Your task to perform on an android device: turn notification dots off Image 0: 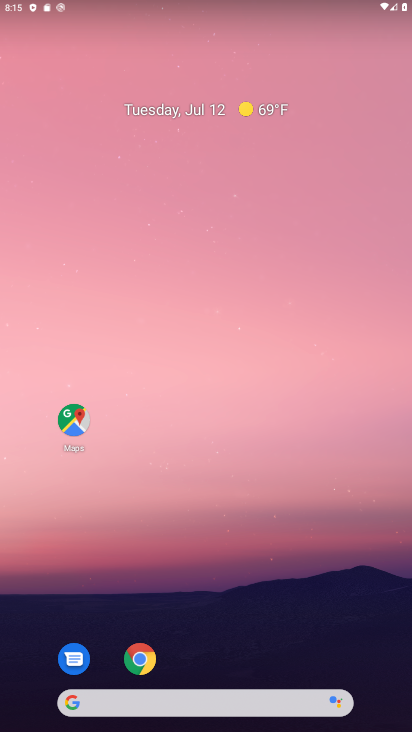
Step 0: drag from (378, 637) to (238, 88)
Your task to perform on an android device: turn notification dots off Image 1: 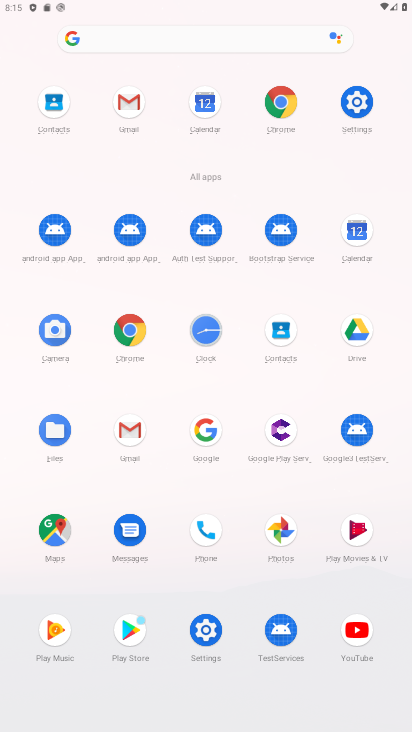
Step 1: click (347, 113)
Your task to perform on an android device: turn notification dots off Image 2: 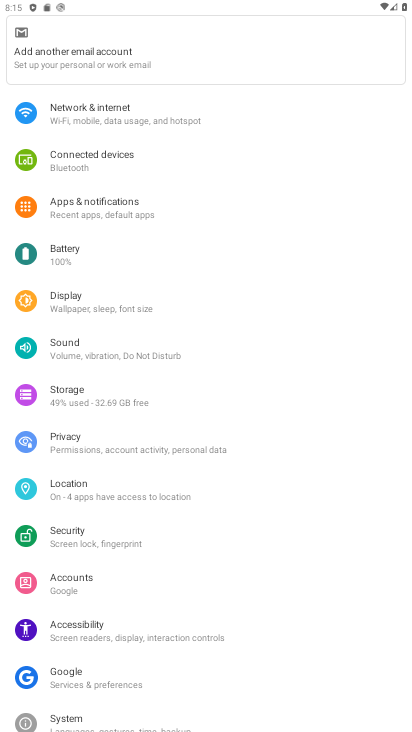
Step 2: click (256, 200)
Your task to perform on an android device: turn notification dots off Image 3: 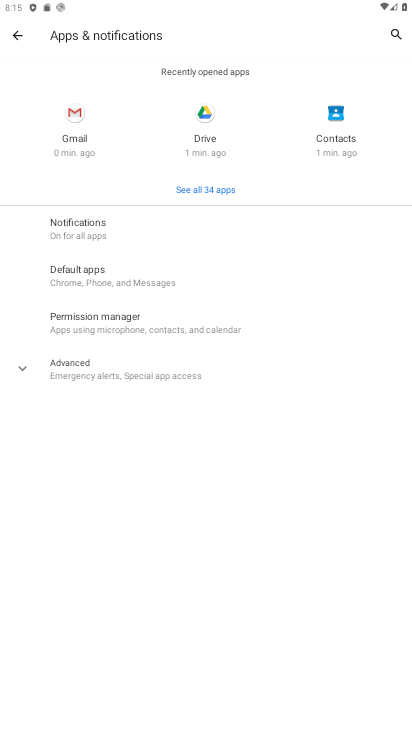
Step 3: click (249, 230)
Your task to perform on an android device: turn notification dots off Image 4: 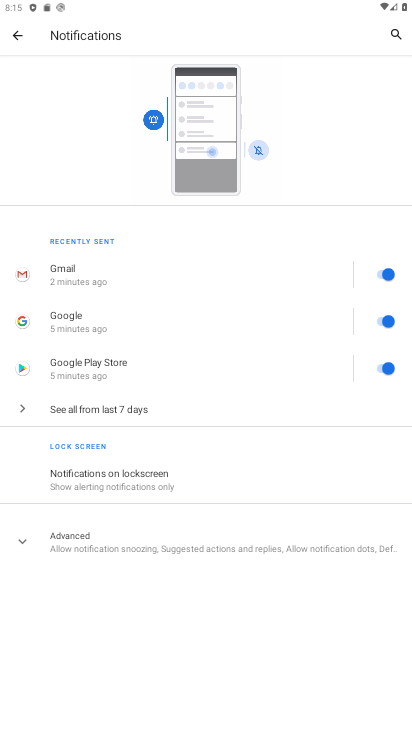
Step 4: click (184, 538)
Your task to perform on an android device: turn notification dots off Image 5: 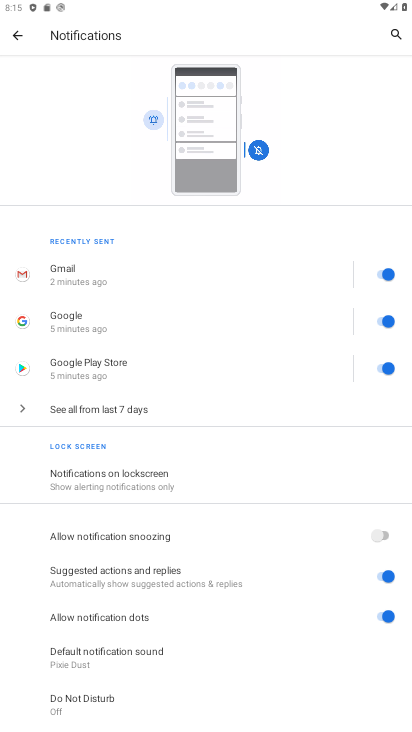
Step 5: click (388, 614)
Your task to perform on an android device: turn notification dots off Image 6: 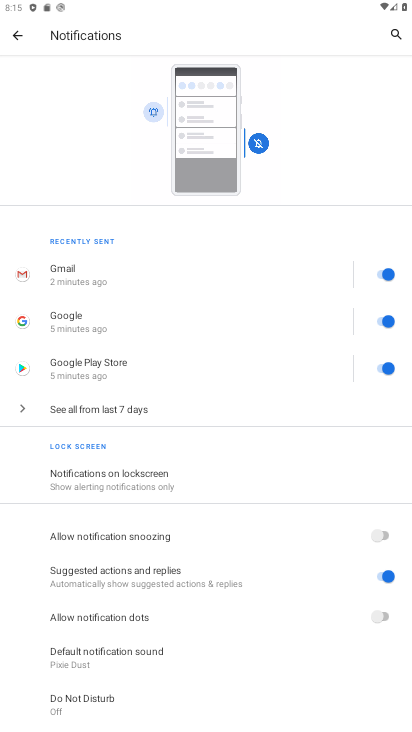
Step 6: task complete